Your task to perform on an android device: Open privacy settings Image 0: 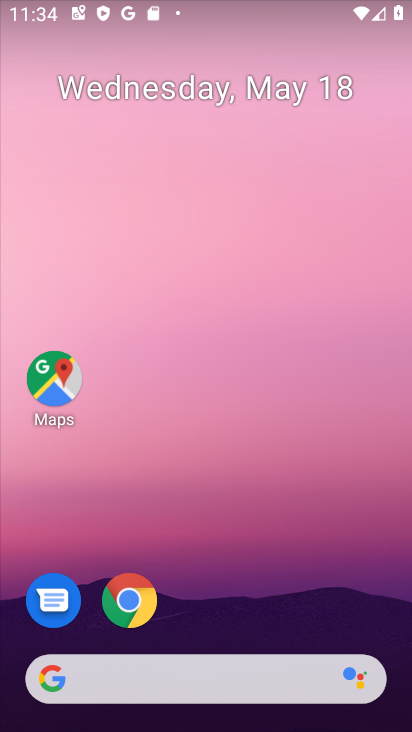
Step 0: drag from (193, 627) to (262, 109)
Your task to perform on an android device: Open privacy settings Image 1: 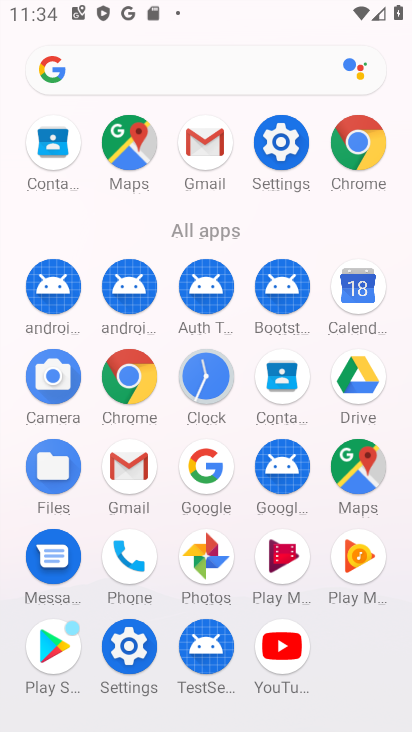
Step 1: click (124, 652)
Your task to perform on an android device: Open privacy settings Image 2: 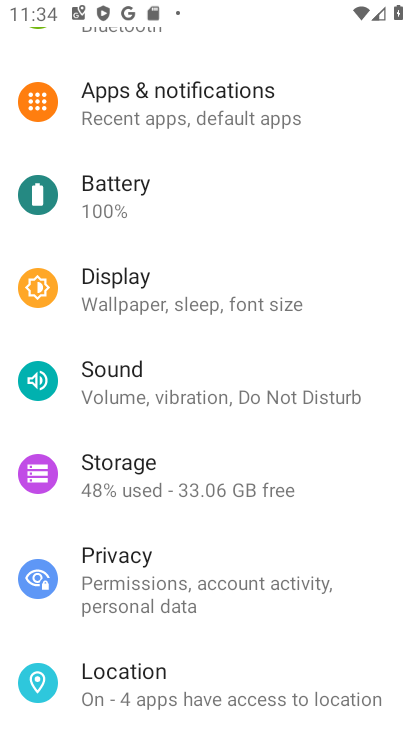
Step 2: click (151, 581)
Your task to perform on an android device: Open privacy settings Image 3: 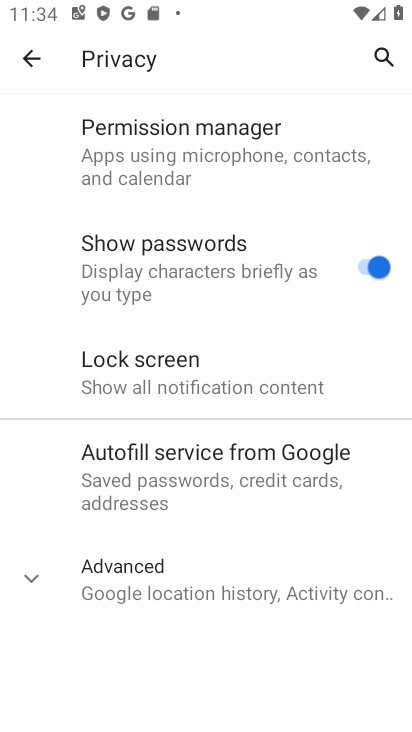
Step 3: task complete